Your task to perform on an android device: turn off priority inbox in the gmail app Image 0: 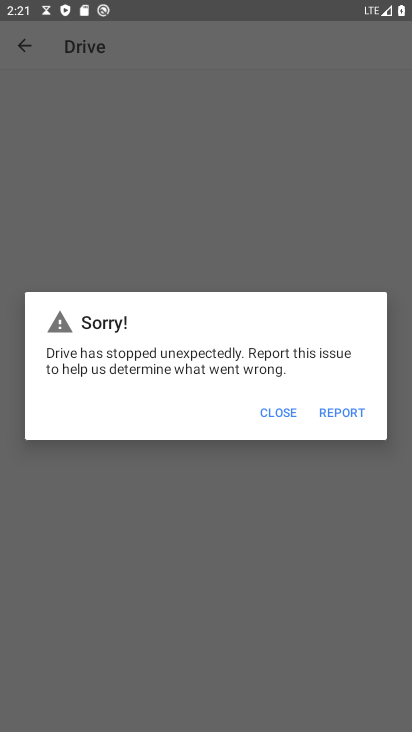
Step 0: press home button
Your task to perform on an android device: turn off priority inbox in the gmail app Image 1: 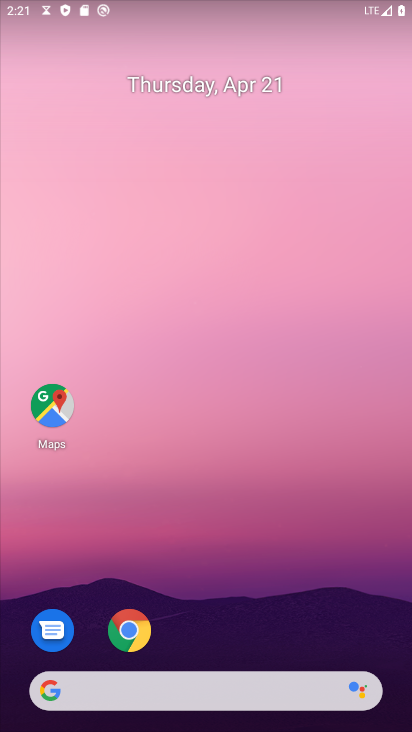
Step 1: drag from (369, 654) to (400, 16)
Your task to perform on an android device: turn off priority inbox in the gmail app Image 2: 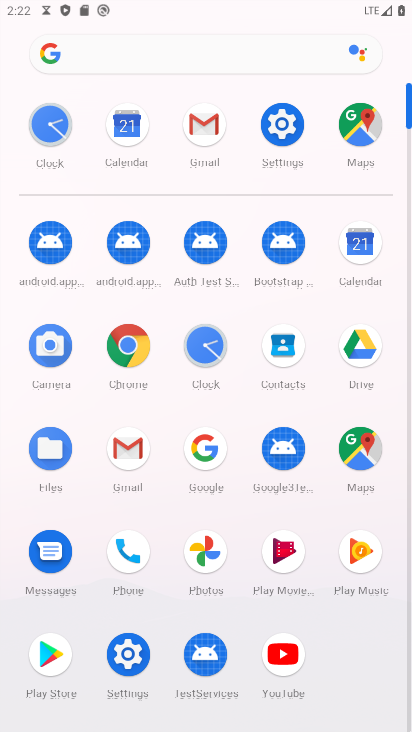
Step 2: click (208, 126)
Your task to perform on an android device: turn off priority inbox in the gmail app Image 3: 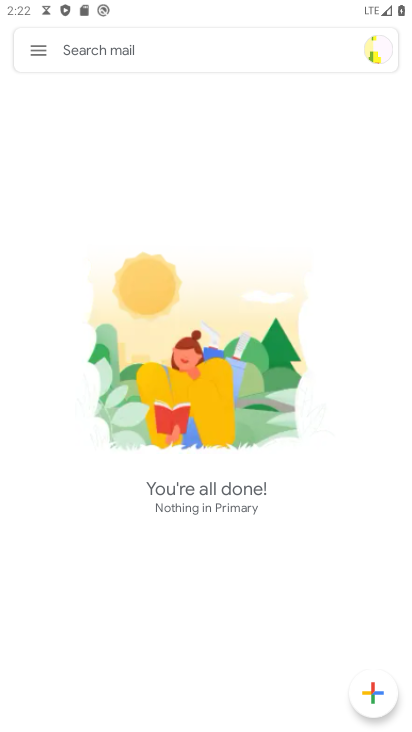
Step 3: click (40, 55)
Your task to perform on an android device: turn off priority inbox in the gmail app Image 4: 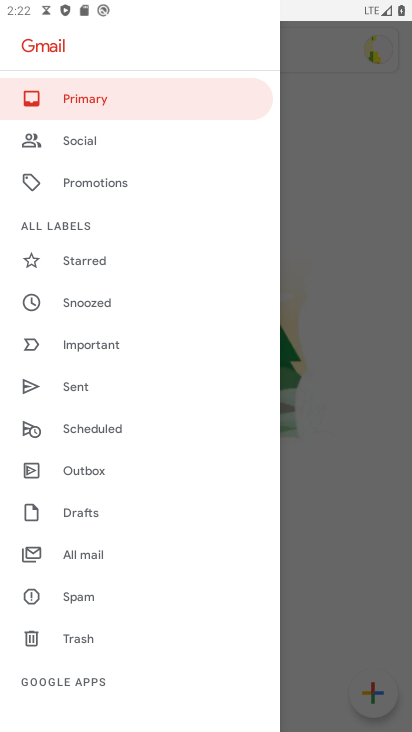
Step 4: drag from (125, 671) to (116, 328)
Your task to perform on an android device: turn off priority inbox in the gmail app Image 5: 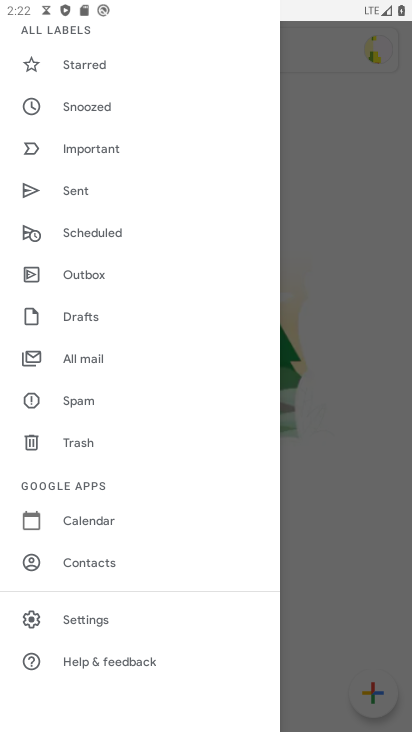
Step 5: click (72, 614)
Your task to perform on an android device: turn off priority inbox in the gmail app Image 6: 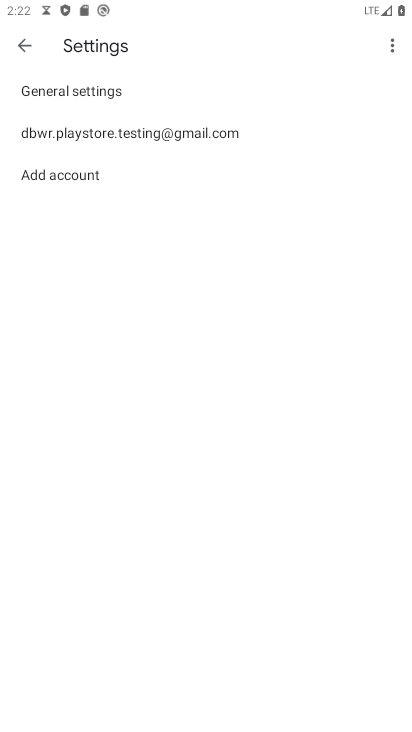
Step 6: click (65, 143)
Your task to perform on an android device: turn off priority inbox in the gmail app Image 7: 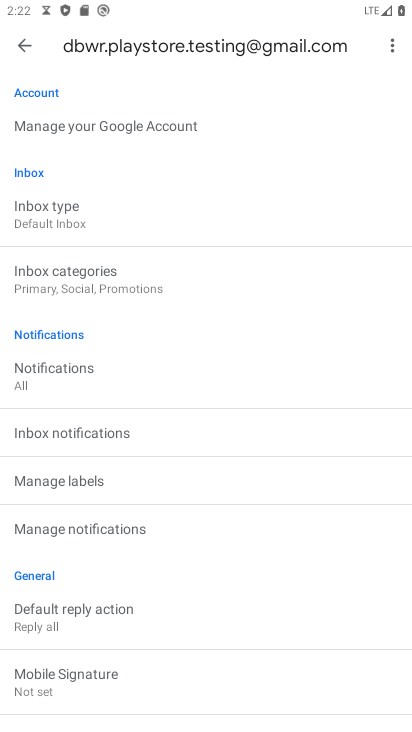
Step 7: click (41, 223)
Your task to perform on an android device: turn off priority inbox in the gmail app Image 8: 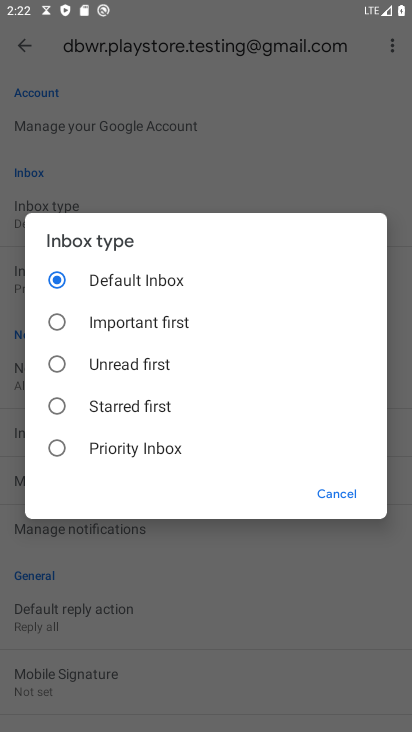
Step 8: task complete